Your task to perform on an android device: Go to Amazon Image 0: 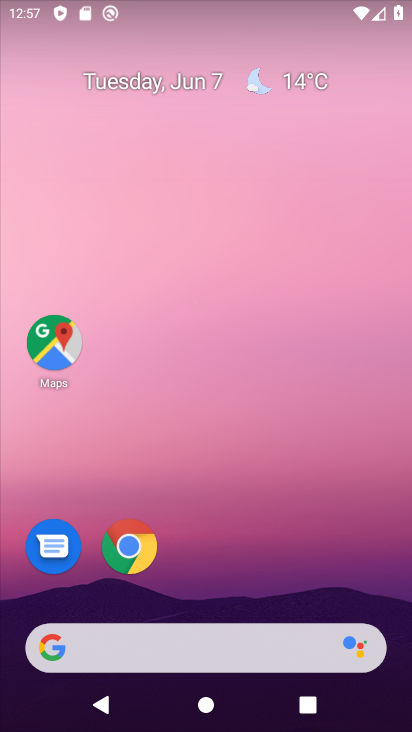
Step 0: drag from (222, 620) to (164, 123)
Your task to perform on an android device: Go to Amazon Image 1: 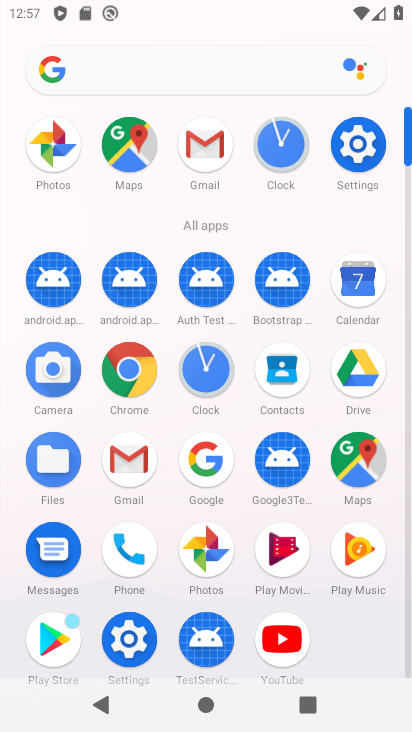
Step 1: click (143, 369)
Your task to perform on an android device: Go to Amazon Image 2: 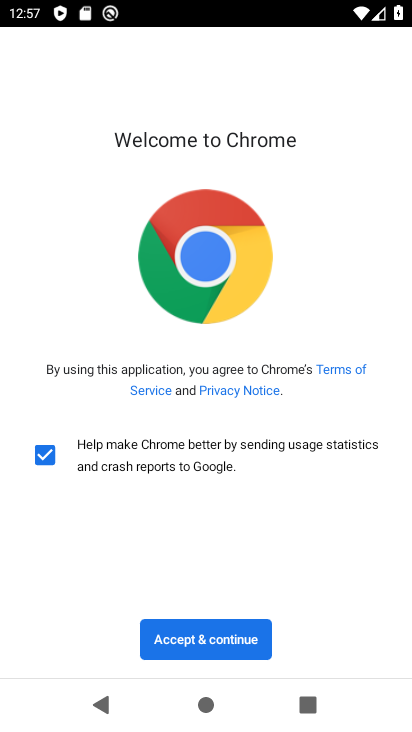
Step 2: click (180, 640)
Your task to perform on an android device: Go to Amazon Image 3: 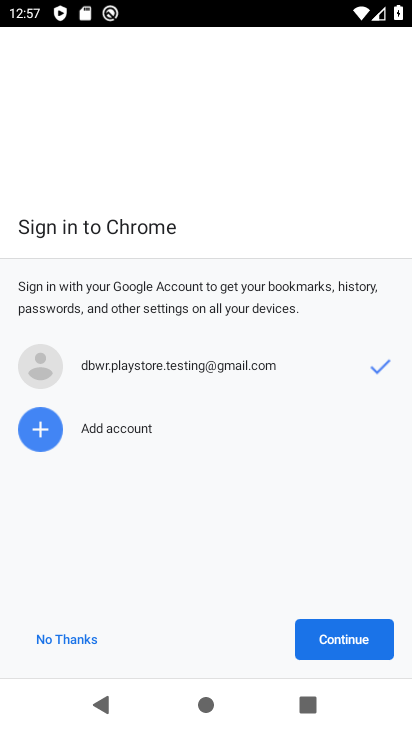
Step 3: click (355, 641)
Your task to perform on an android device: Go to Amazon Image 4: 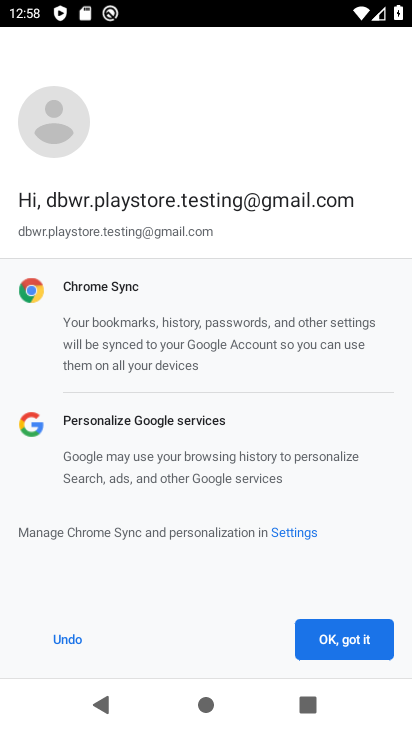
Step 4: click (356, 653)
Your task to perform on an android device: Go to Amazon Image 5: 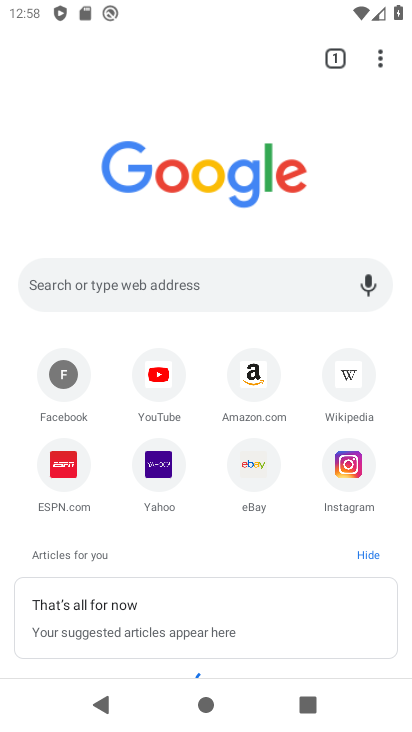
Step 5: click (259, 372)
Your task to perform on an android device: Go to Amazon Image 6: 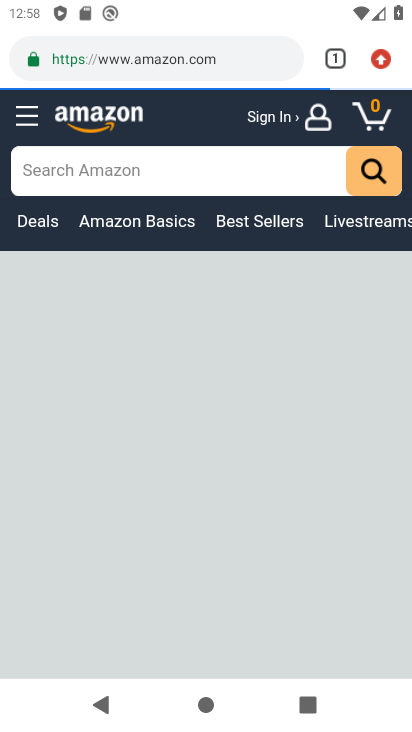
Step 6: task complete